Your task to perform on an android device: Play the last video I watched on Youtube Image 0: 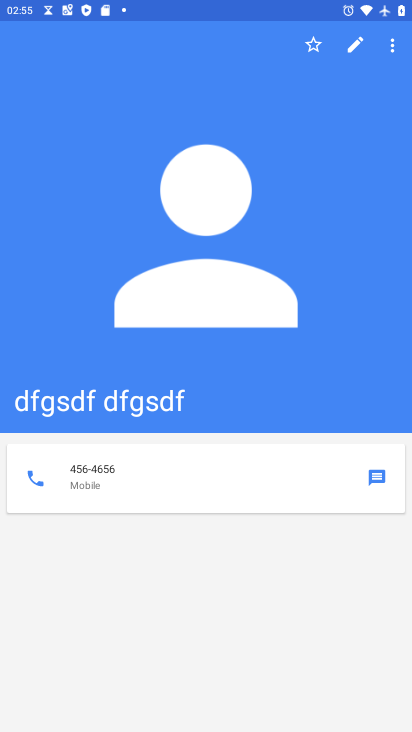
Step 0: press home button
Your task to perform on an android device: Play the last video I watched on Youtube Image 1: 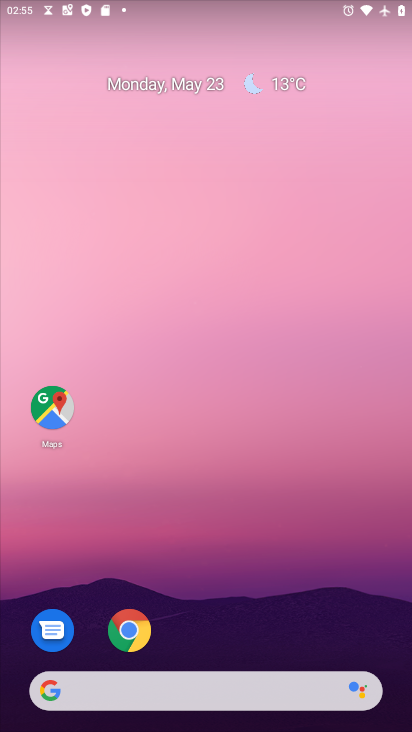
Step 1: click (141, 617)
Your task to perform on an android device: Play the last video I watched on Youtube Image 2: 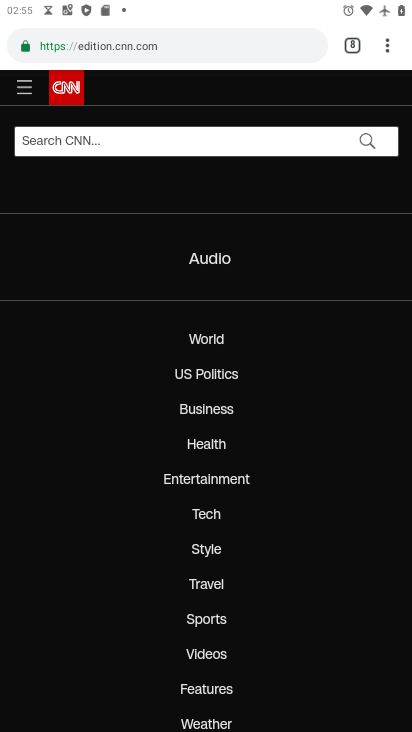
Step 2: press home button
Your task to perform on an android device: Play the last video I watched on Youtube Image 3: 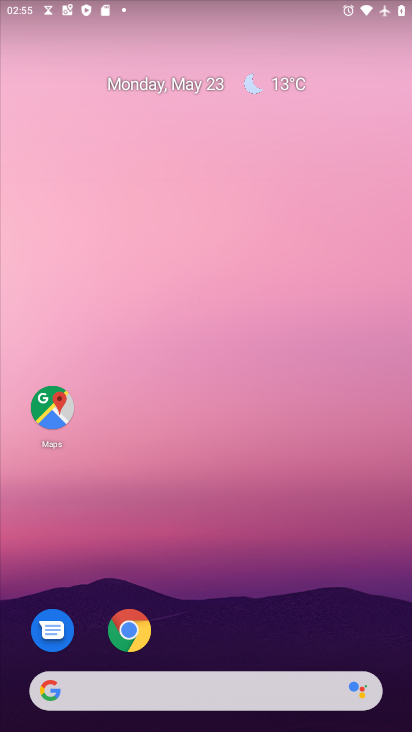
Step 3: drag from (303, 612) to (184, 51)
Your task to perform on an android device: Play the last video I watched on Youtube Image 4: 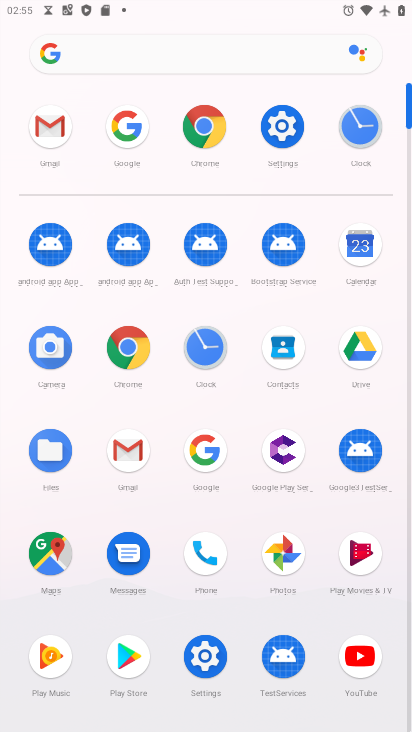
Step 4: click (368, 664)
Your task to perform on an android device: Play the last video I watched on Youtube Image 5: 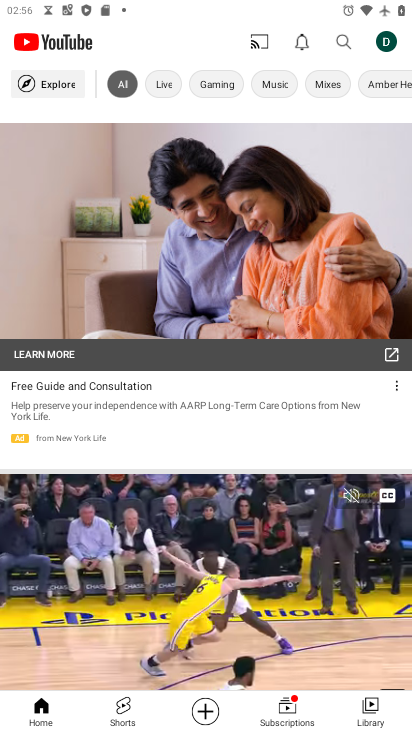
Step 5: click (376, 708)
Your task to perform on an android device: Play the last video I watched on Youtube Image 6: 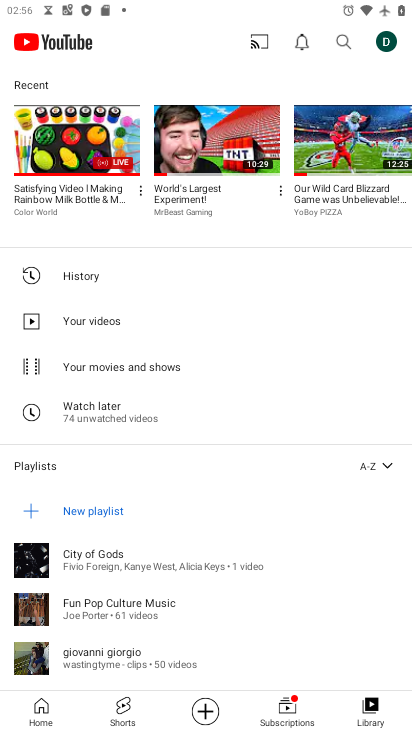
Step 6: click (54, 160)
Your task to perform on an android device: Play the last video I watched on Youtube Image 7: 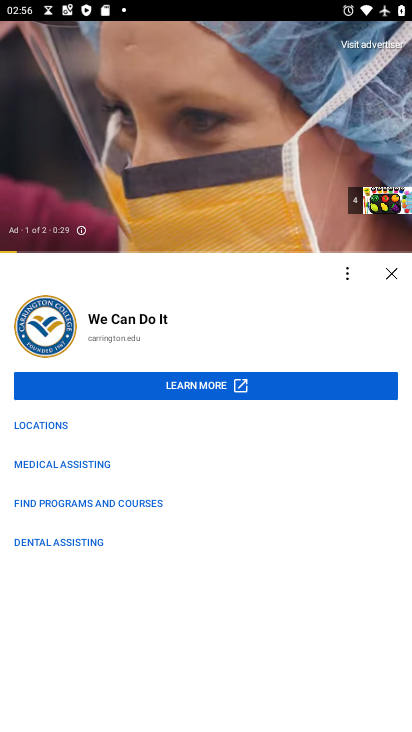
Step 7: click (212, 129)
Your task to perform on an android device: Play the last video I watched on Youtube Image 8: 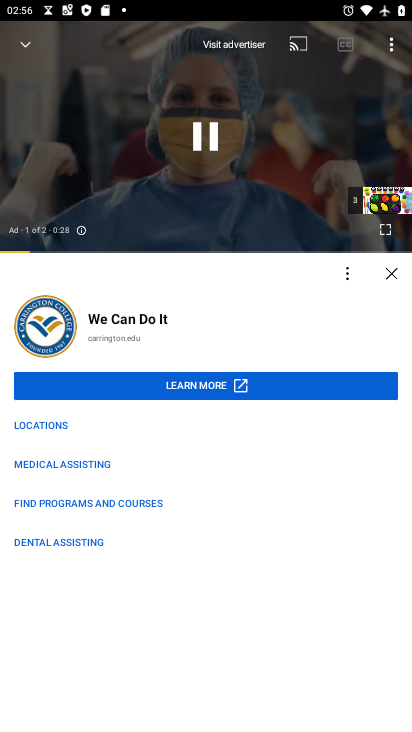
Step 8: click (212, 129)
Your task to perform on an android device: Play the last video I watched on Youtube Image 9: 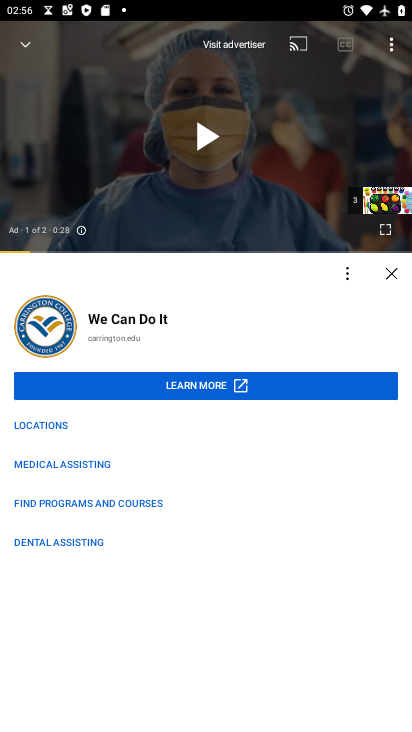
Step 9: task complete